Your task to perform on an android device: Toggle the flashlight Image 0: 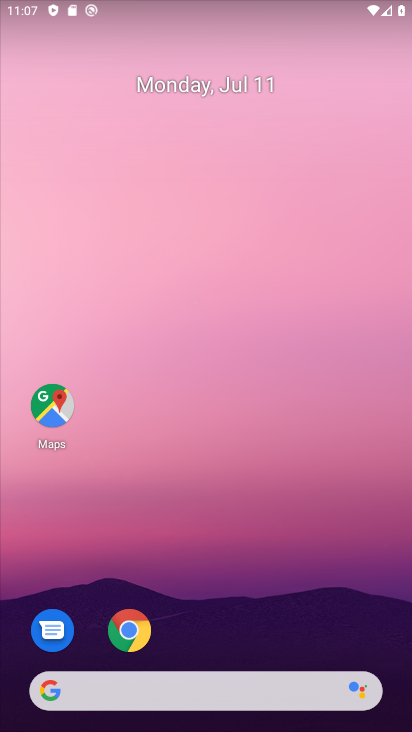
Step 0: drag from (361, 5) to (376, 469)
Your task to perform on an android device: Toggle the flashlight Image 1: 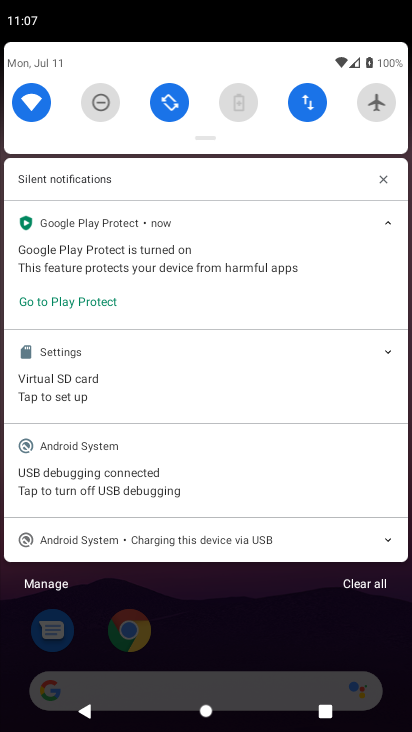
Step 1: drag from (252, 127) to (237, 500)
Your task to perform on an android device: Toggle the flashlight Image 2: 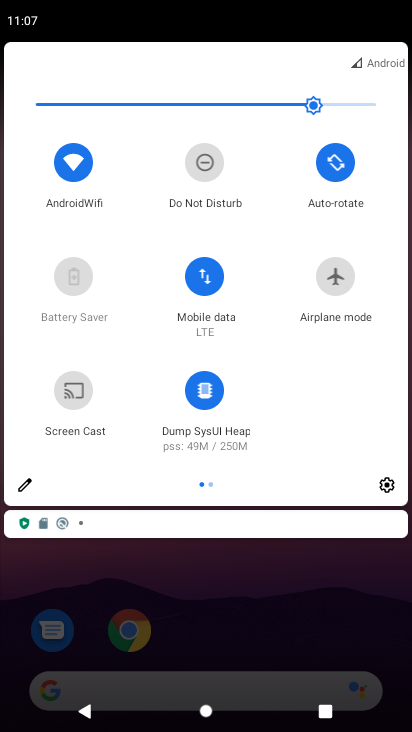
Step 2: click (27, 480)
Your task to perform on an android device: Toggle the flashlight Image 3: 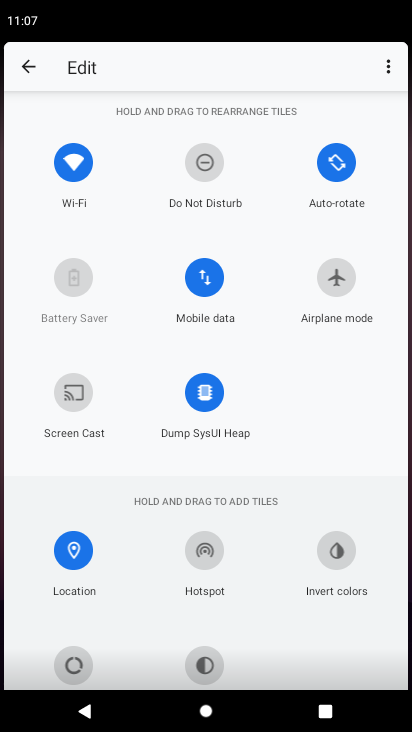
Step 3: task complete